Your task to perform on an android device: open the mobile data screen to see how much data has been used Image 0: 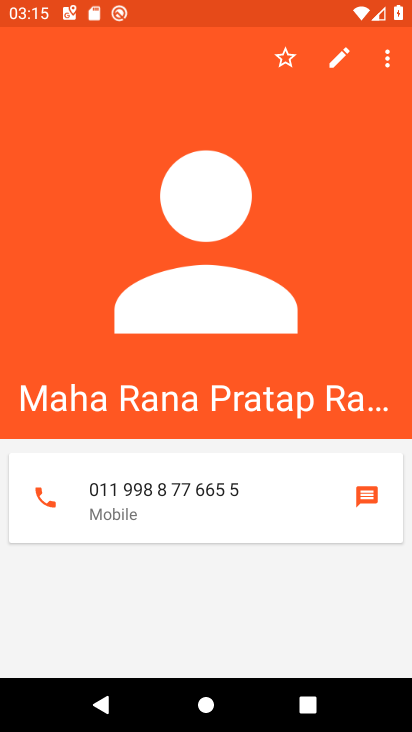
Step 0: press home button
Your task to perform on an android device: open the mobile data screen to see how much data has been used Image 1: 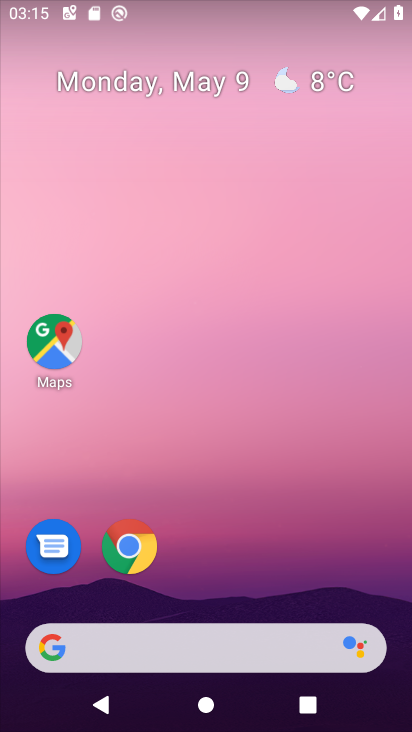
Step 1: drag from (217, 536) to (222, 59)
Your task to perform on an android device: open the mobile data screen to see how much data has been used Image 2: 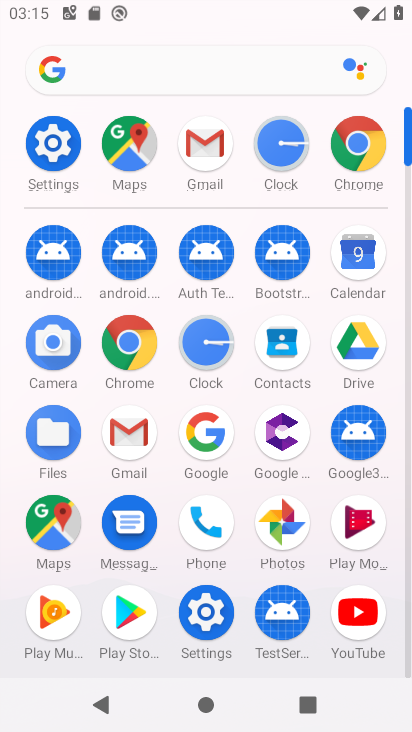
Step 2: click (61, 136)
Your task to perform on an android device: open the mobile data screen to see how much data has been used Image 3: 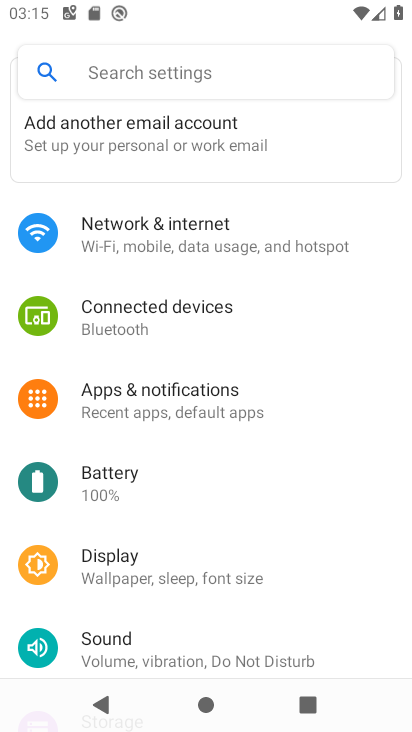
Step 3: click (189, 234)
Your task to perform on an android device: open the mobile data screen to see how much data has been used Image 4: 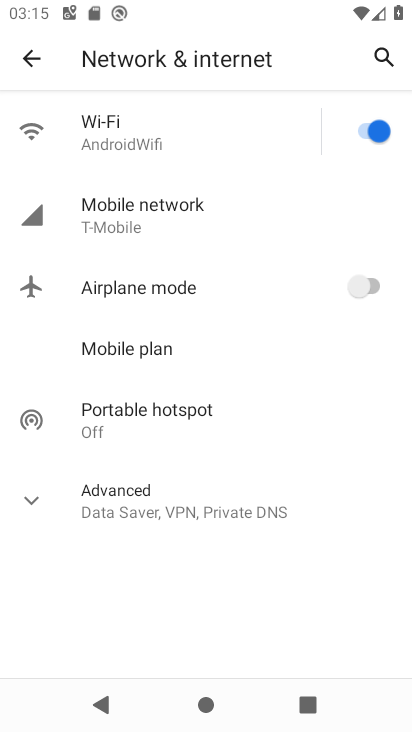
Step 4: click (235, 201)
Your task to perform on an android device: open the mobile data screen to see how much data has been used Image 5: 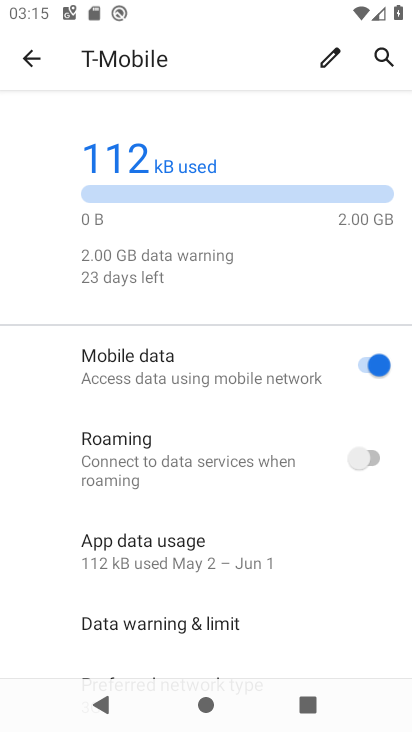
Step 5: task complete